Your task to perform on an android device: turn smart compose on in the gmail app Image 0: 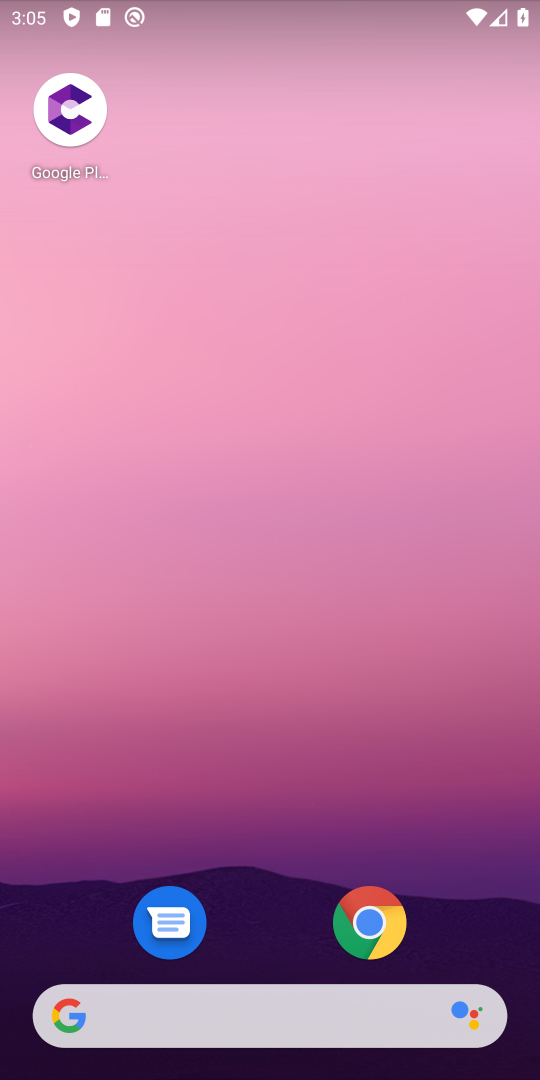
Step 0: drag from (88, 751) to (383, 107)
Your task to perform on an android device: turn smart compose on in the gmail app Image 1: 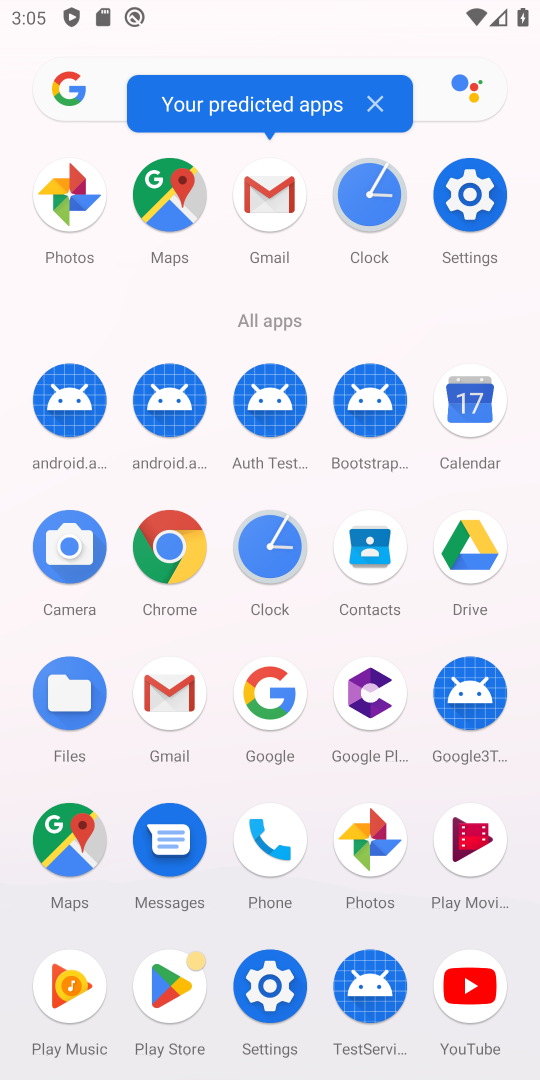
Step 1: click (264, 206)
Your task to perform on an android device: turn smart compose on in the gmail app Image 2: 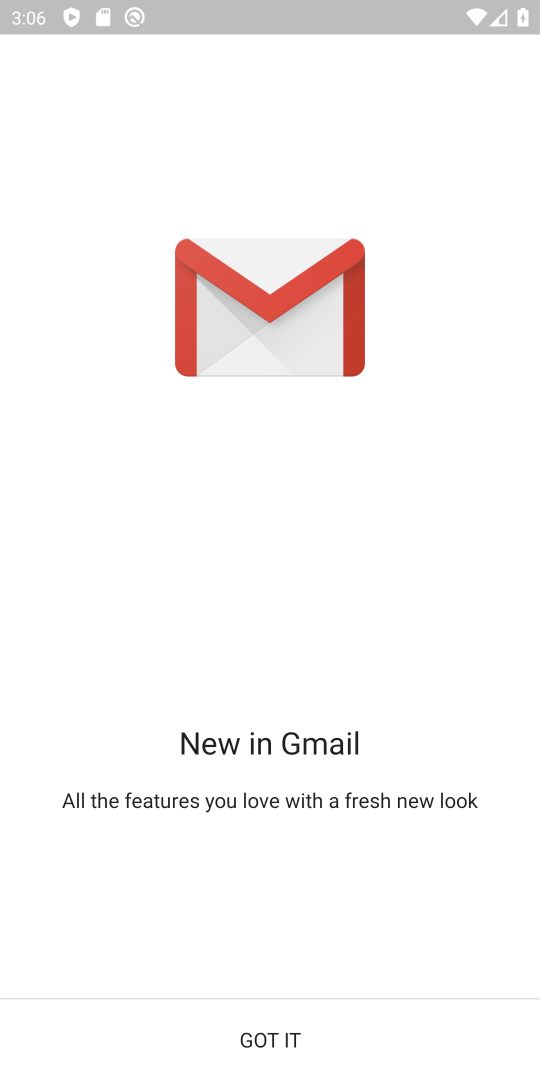
Step 2: click (362, 1026)
Your task to perform on an android device: turn smart compose on in the gmail app Image 3: 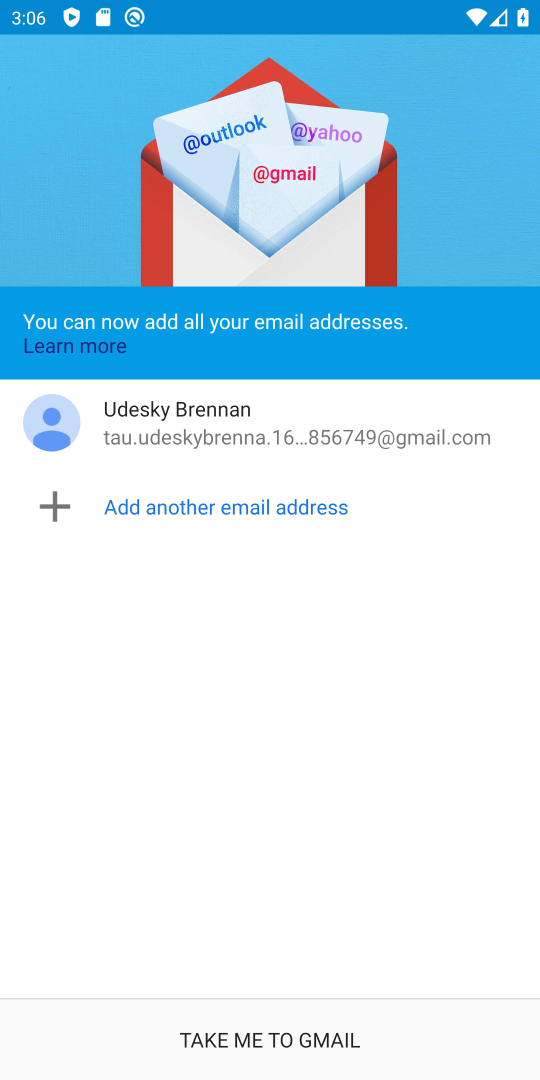
Step 3: click (279, 1049)
Your task to perform on an android device: turn smart compose on in the gmail app Image 4: 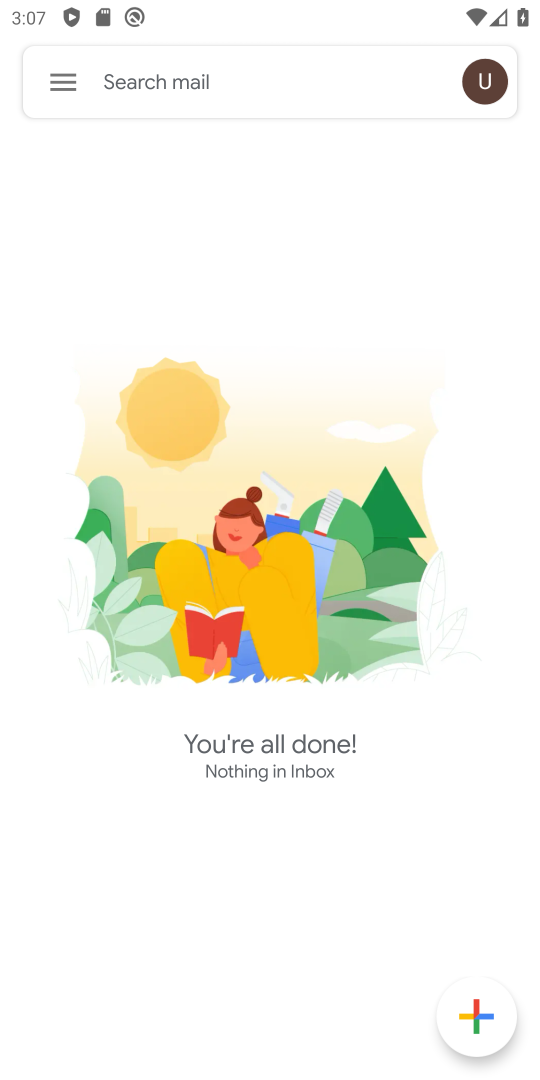
Step 4: click (58, 70)
Your task to perform on an android device: turn smart compose on in the gmail app Image 5: 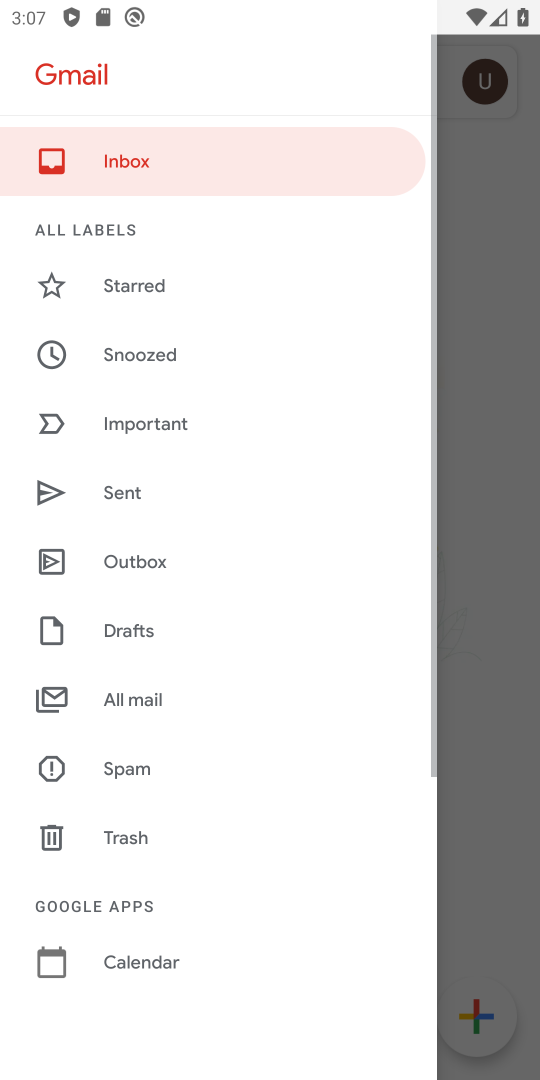
Step 5: drag from (49, 963) to (256, 334)
Your task to perform on an android device: turn smart compose on in the gmail app Image 6: 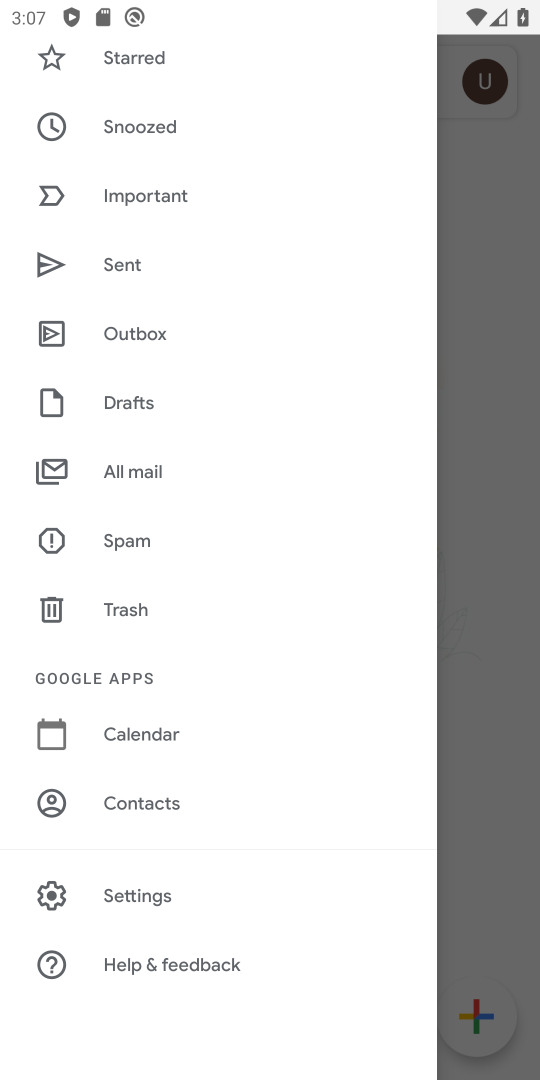
Step 6: click (128, 901)
Your task to perform on an android device: turn smart compose on in the gmail app Image 7: 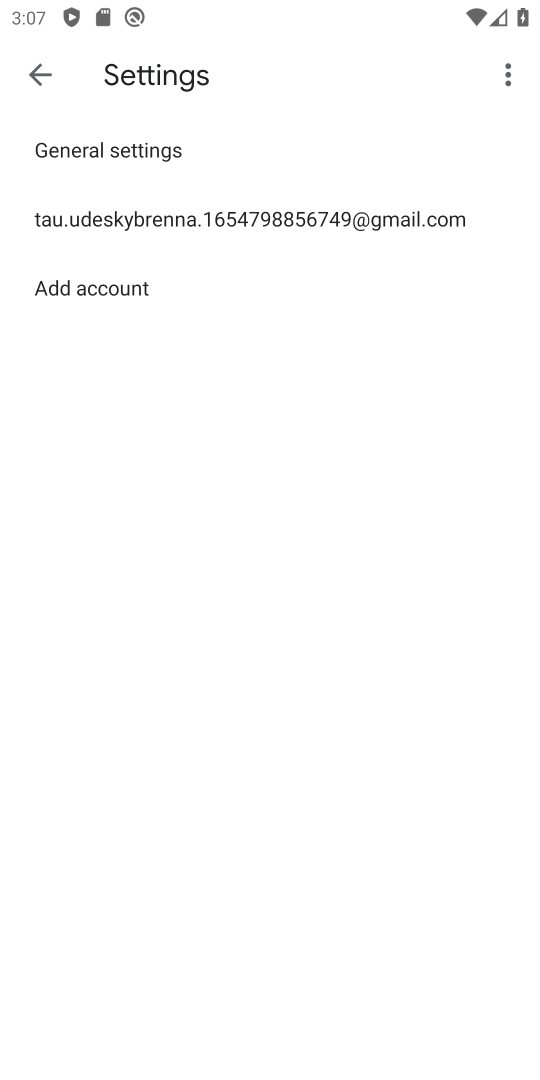
Step 7: click (191, 204)
Your task to perform on an android device: turn smart compose on in the gmail app Image 8: 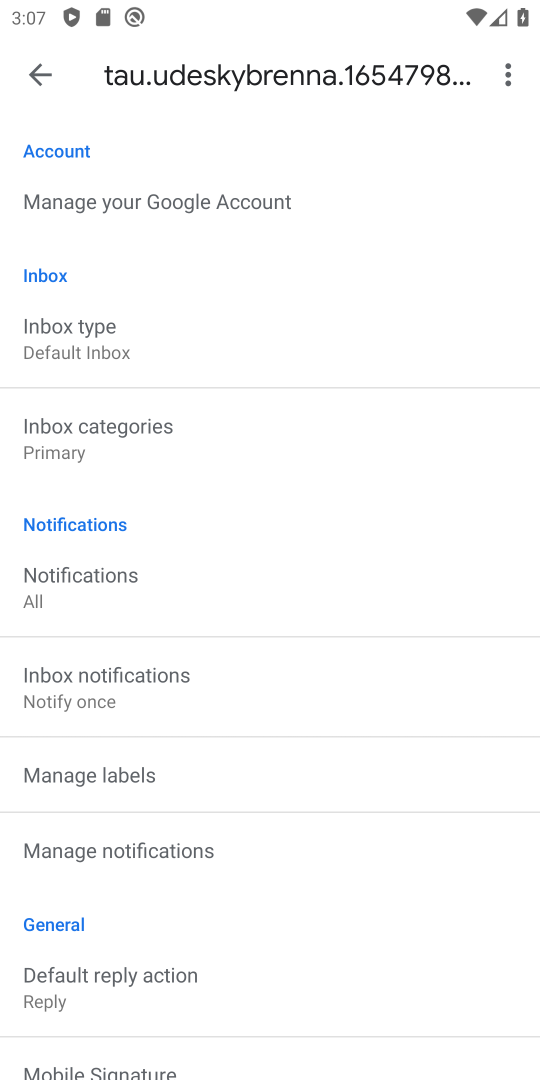
Step 8: task complete